Your task to perform on an android device: open a bookmark in the chrome app Image 0: 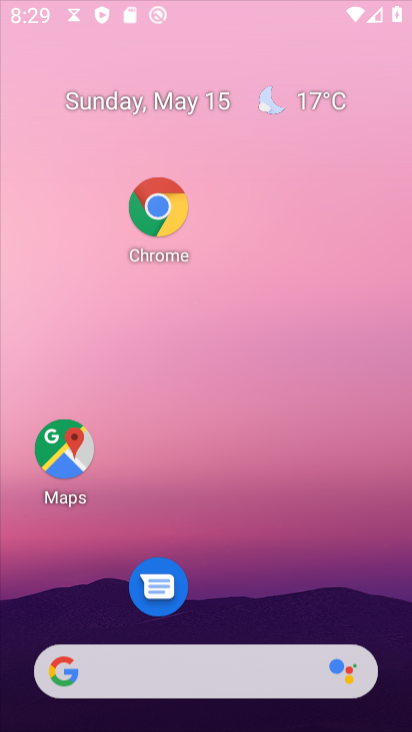
Step 0: click (22, 60)
Your task to perform on an android device: open a bookmark in the chrome app Image 1: 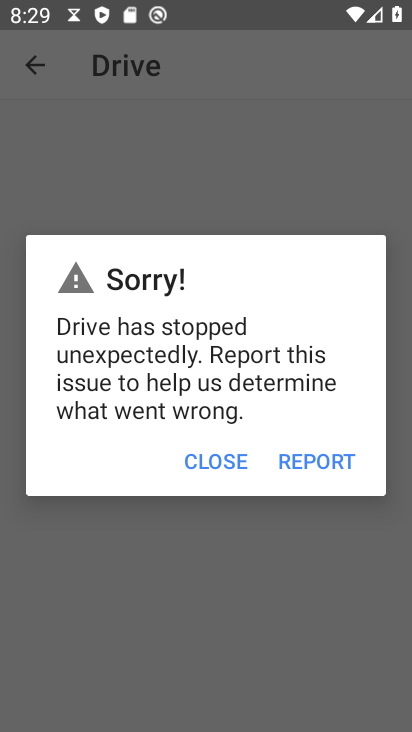
Step 1: drag from (180, 456) to (214, 444)
Your task to perform on an android device: open a bookmark in the chrome app Image 2: 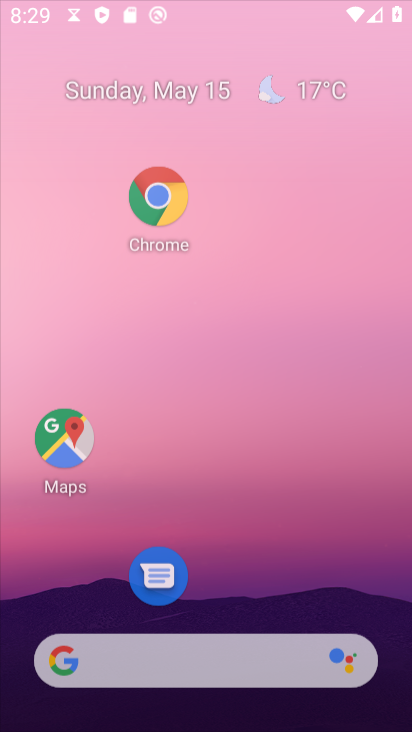
Step 2: click (205, 444)
Your task to perform on an android device: open a bookmark in the chrome app Image 3: 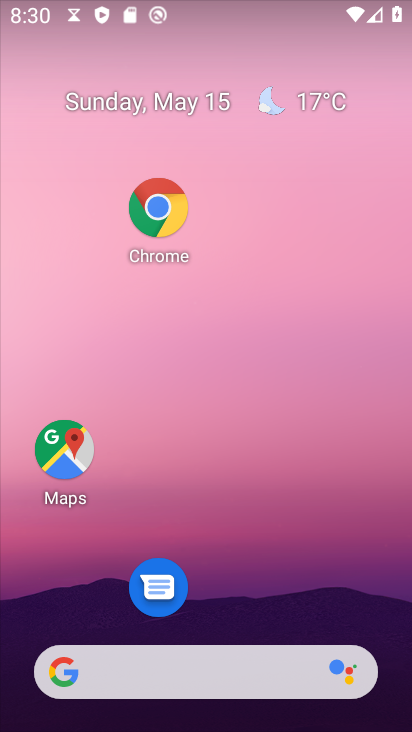
Step 3: click (196, 444)
Your task to perform on an android device: open a bookmark in the chrome app Image 4: 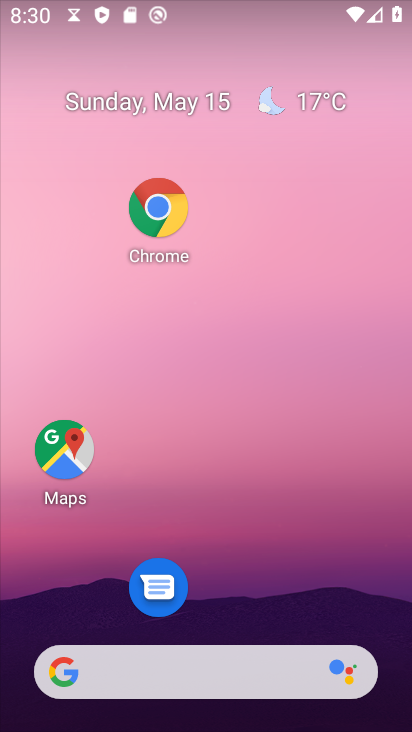
Step 4: click (194, 443)
Your task to perform on an android device: open a bookmark in the chrome app Image 5: 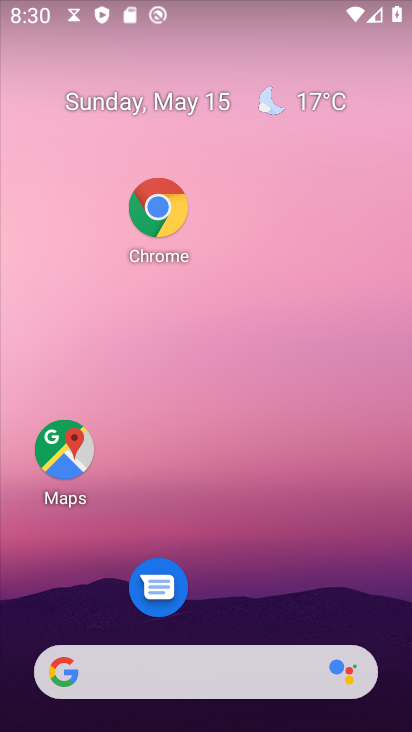
Step 5: click (196, 436)
Your task to perform on an android device: open a bookmark in the chrome app Image 6: 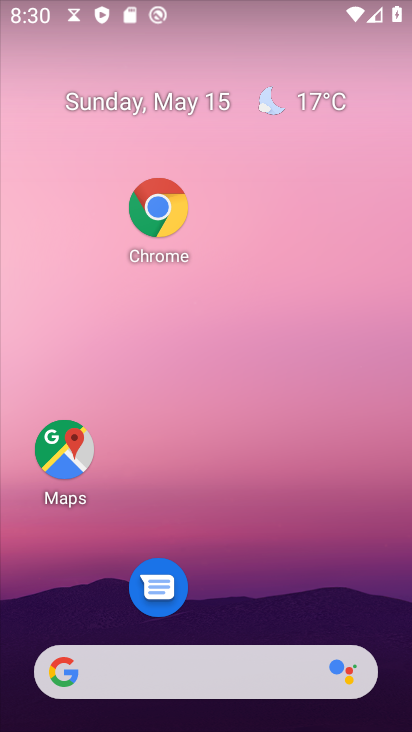
Step 6: click (196, 436)
Your task to perform on an android device: open a bookmark in the chrome app Image 7: 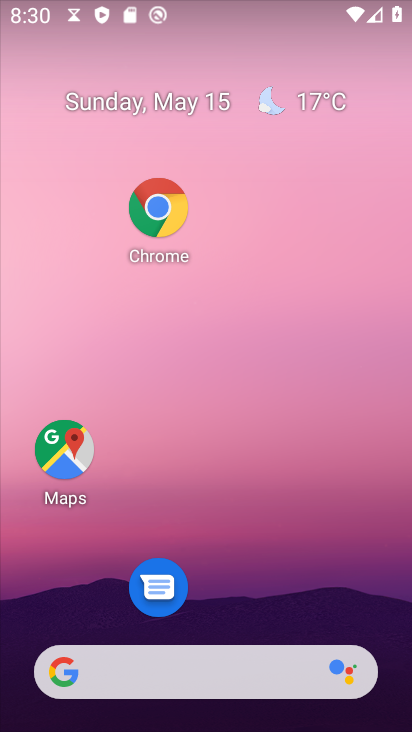
Step 7: click (196, 436)
Your task to perform on an android device: open a bookmark in the chrome app Image 8: 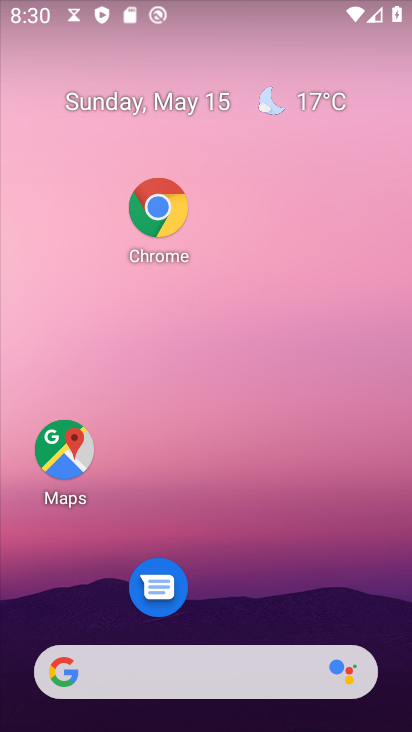
Step 8: drag from (315, 528) to (164, 47)
Your task to perform on an android device: open a bookmark in the chrome app Image 9: 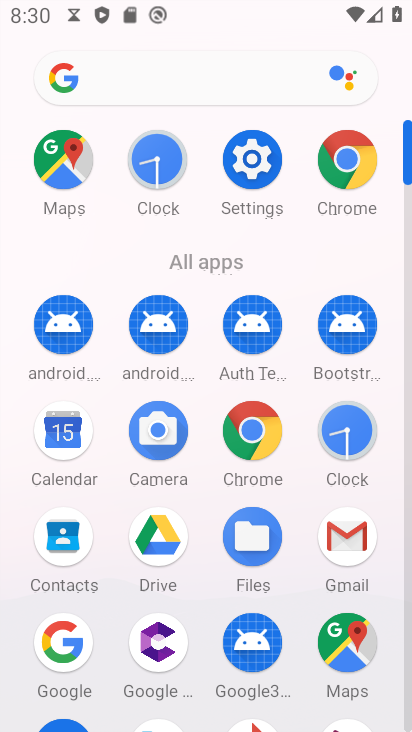
Step 9: click (201, 116)
Your task to perform on an android device: open a bookmark in the chrome app Image 10: 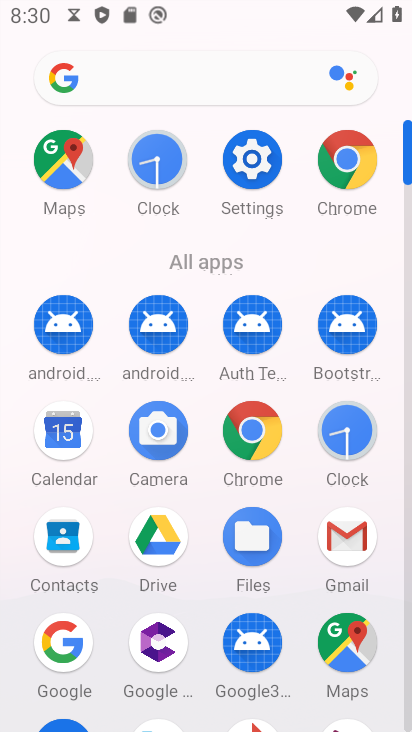
Step 10: drag from (200, 540) to (240, 31)
Your task to perform on an android device: open a bookmark in the chrome app Image 11: 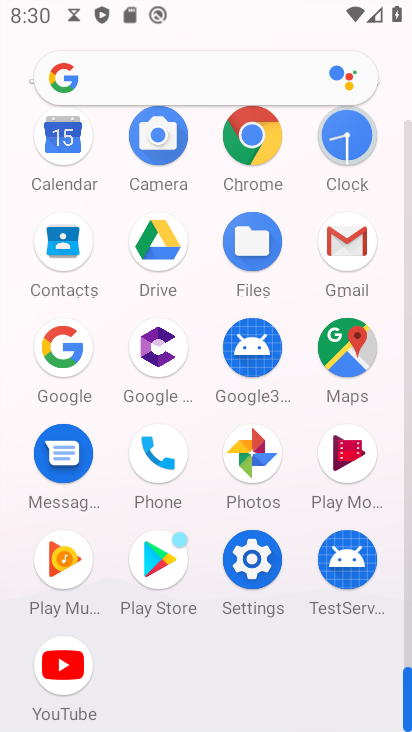
Step 11: click (335, 163)
Your task to perform on an android device: open a bookmark in the chrome app Image 12: 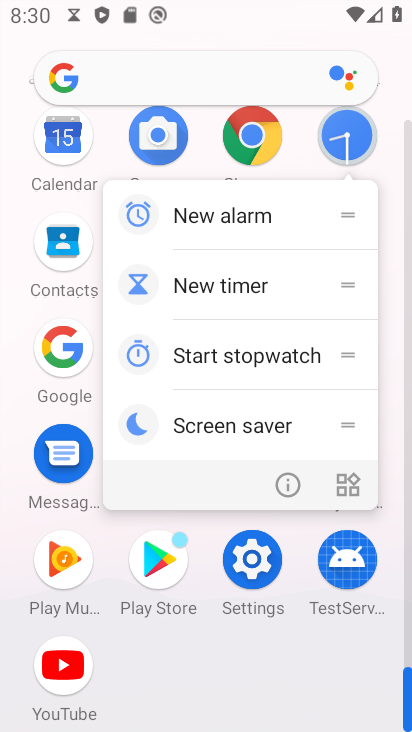
Step 12: click (254, 144)
Your task to perform on an android device: open a bookmark in the chrome app Image 13: 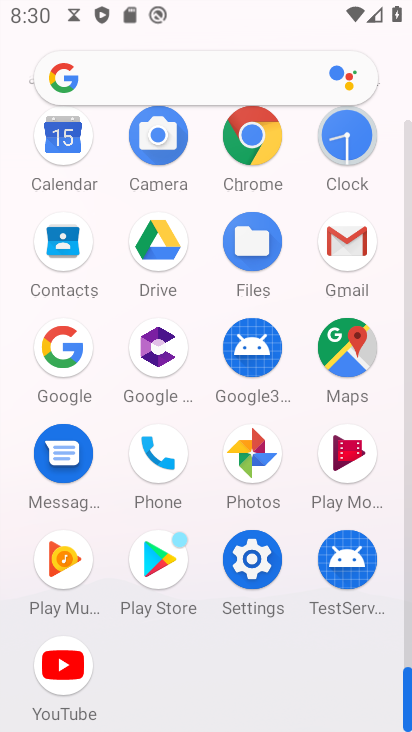
Step 13: click (253, 144)
Your task to perform on an android device: open a bookmark in the chrome app Image 14: 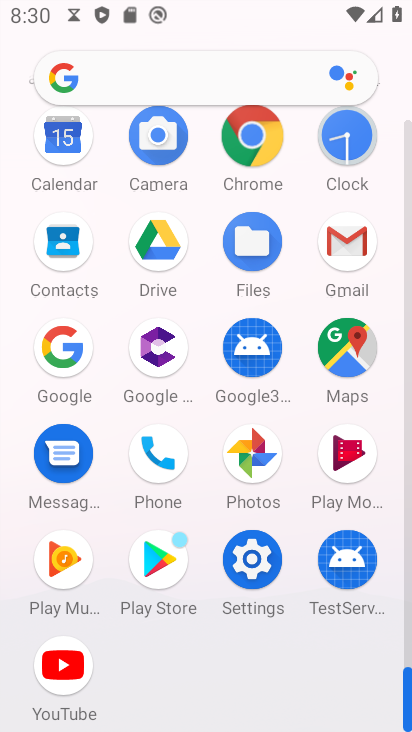
Step 14: click (247, 129)
Your task to perform on an android device: open a bookmark in the chrome app Image 15: 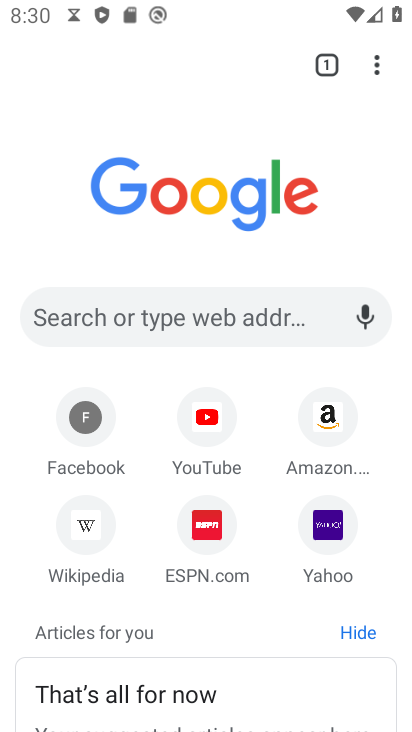
Step 15: click (238, 123)
Your task to perform on an android device: open a bookmark in the chrome app Image 16: 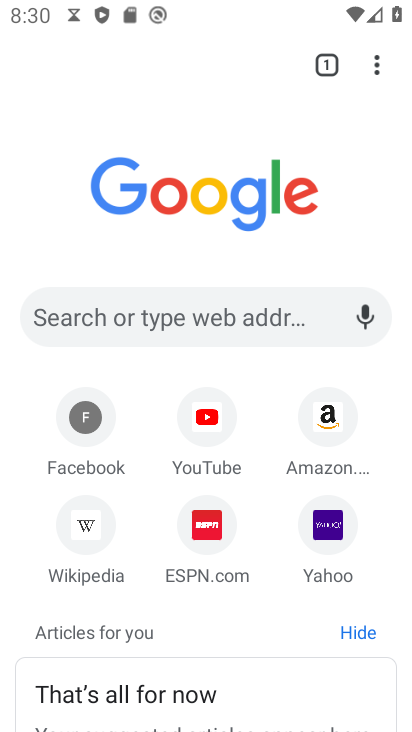
Step 16: click (256, 122)
Your task to perform on an android device: open a bookmark in the chrome app Image 17: 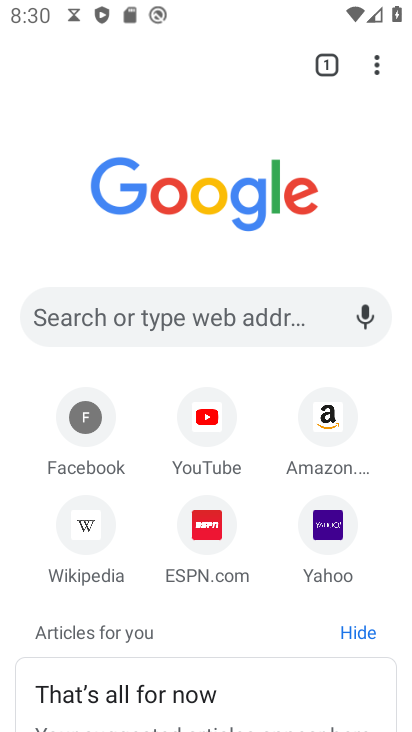
Step 17: click (377, 72)
Your task to perform on an android device: open a bookmark in the chrome app Image 18: 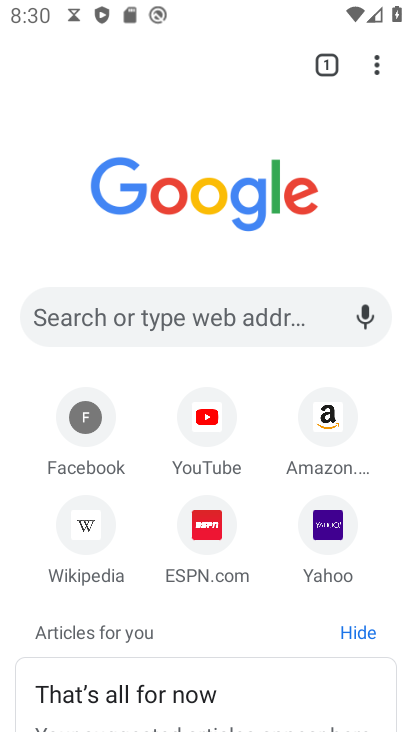
Step 18: click (370, 67)
Your task to perform on an android device: open a bookmark in the chrome app Image 19: 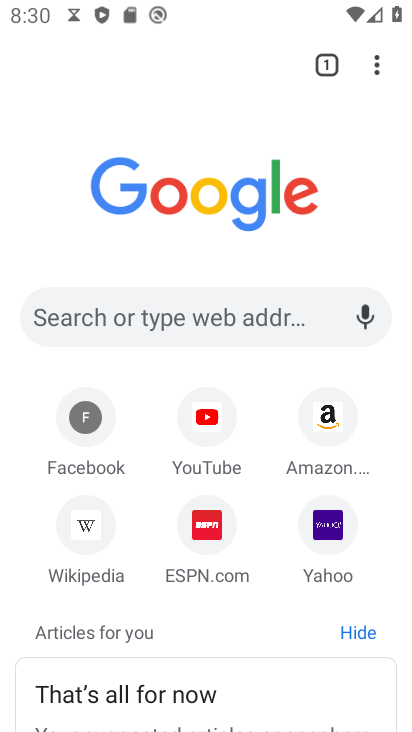
Step 19: click (159, 250)
Your task to perform on an android device: open a bookmark in the chrome app Image 20: 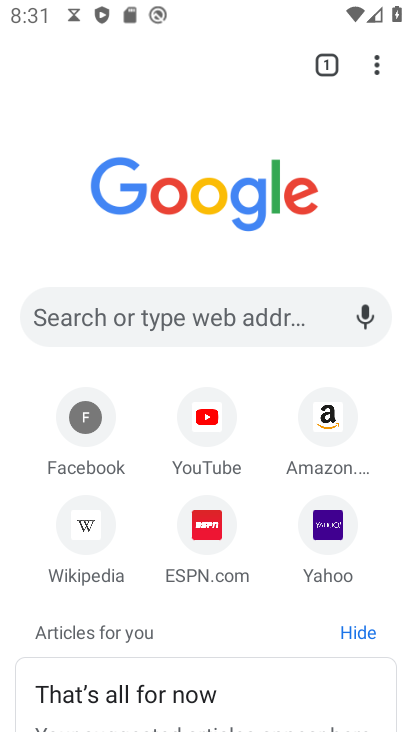
Step 20: click (374, 64)
Your task to perform on an android device: open a bookmark in the chrome app Image 21: 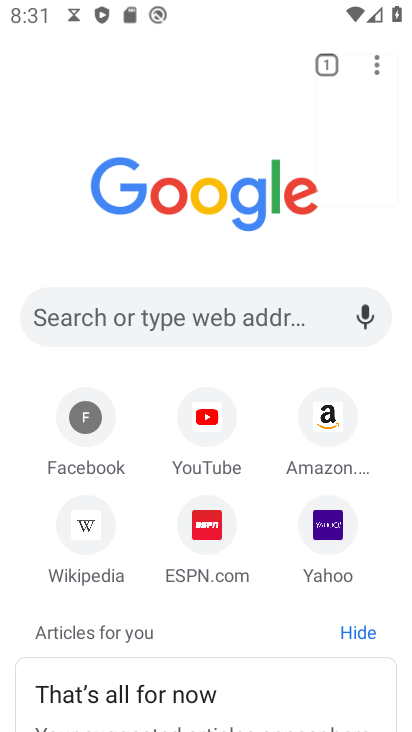
Step 21: click (374, 68)
Your task to perform on an android device: open a bookmark in the chrome app Image 22: 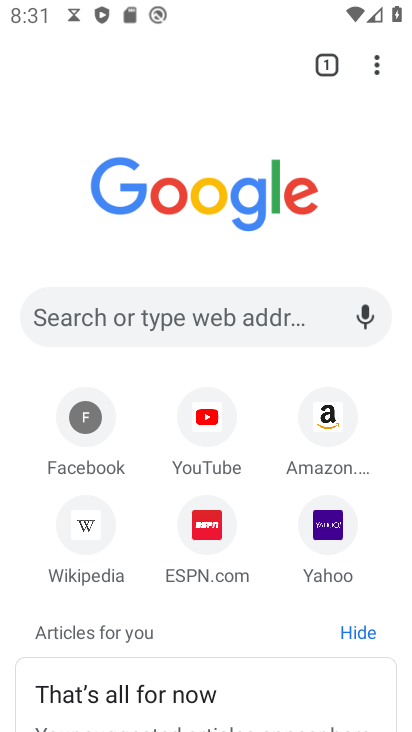
Step 22: click (379, 66)
Your task to perform on an android device: open a bookmark in the chrome app Image 23: 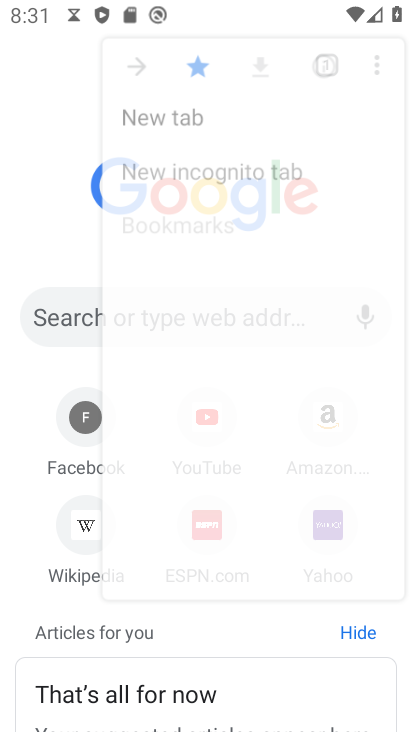
Step 23: click (367, 66)
Your task to perform on an android device: open a bookmark in the chrome app Image 24: 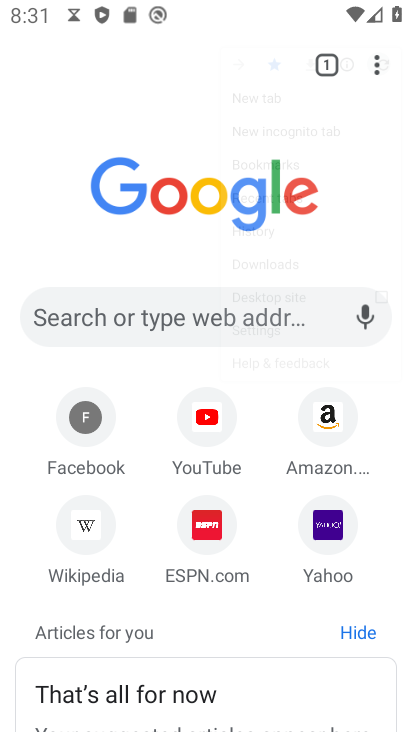
Step 24: click (367, 66)
Your task to perform on an android device: open a bookmark in the chrome app Image 25: 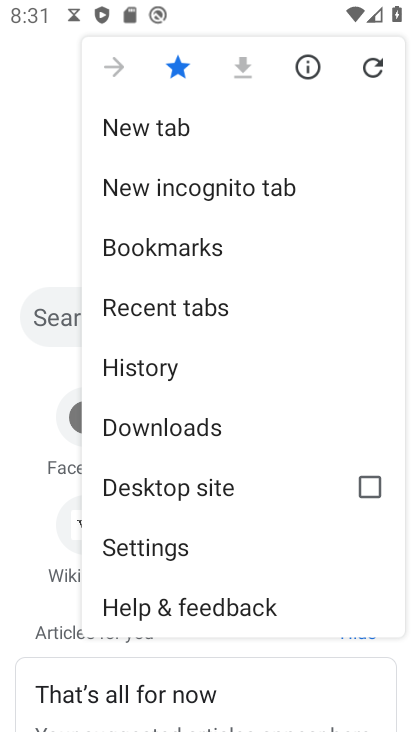
Step 25: click (171, 245)
Your task to perform on an android device: open a bookmark in the chrome app Image 26: 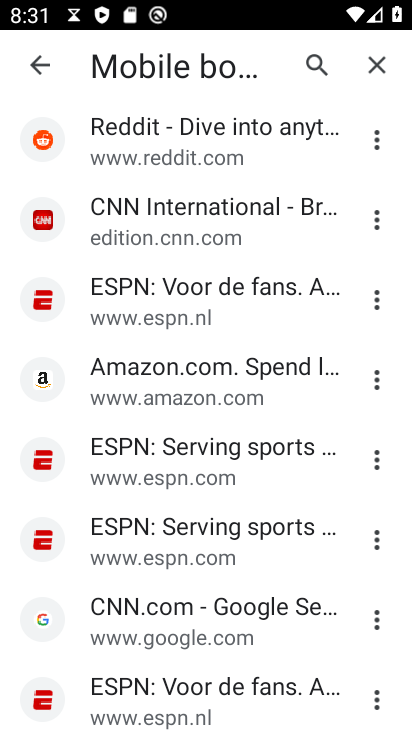
Step 26: click (157, 237)
Your task to perform on an android device: open a bookmark in the chrome app Image 27: 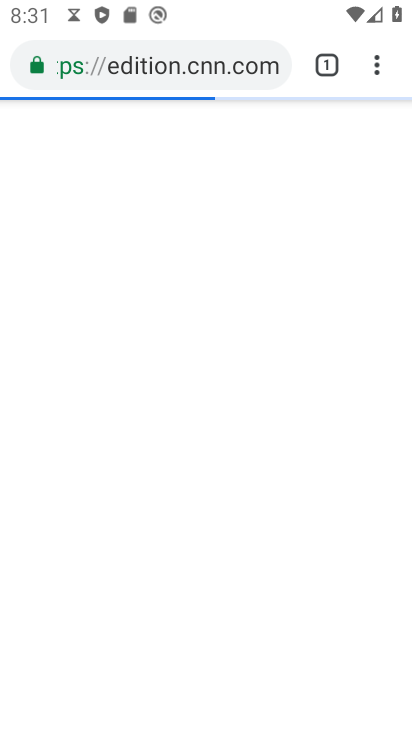
Step 27: click (152, 247)
Your task to perform on an android device: open a bookmark in the chrome app Image 28: 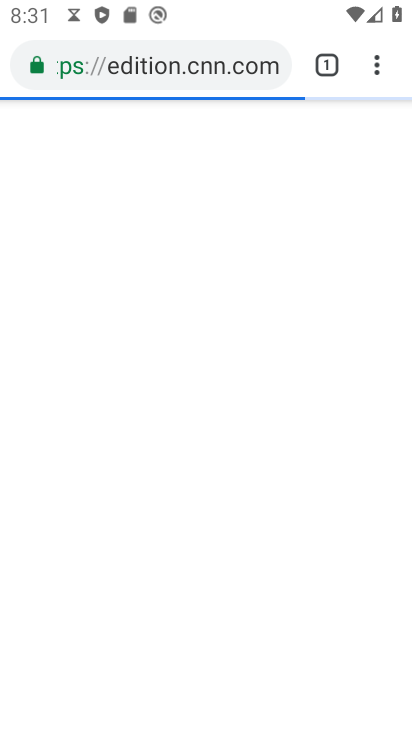
Step 28: task complete